Your task to perform on an android device: Play the last video I watched on Youtube Image 0: 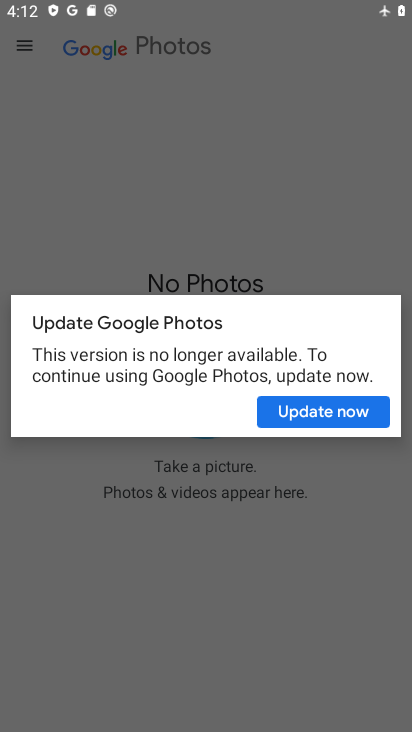
Step 0: click (140, 216)
Your task to perform on an android device: Play the last video I watched on Youtube Image 1: 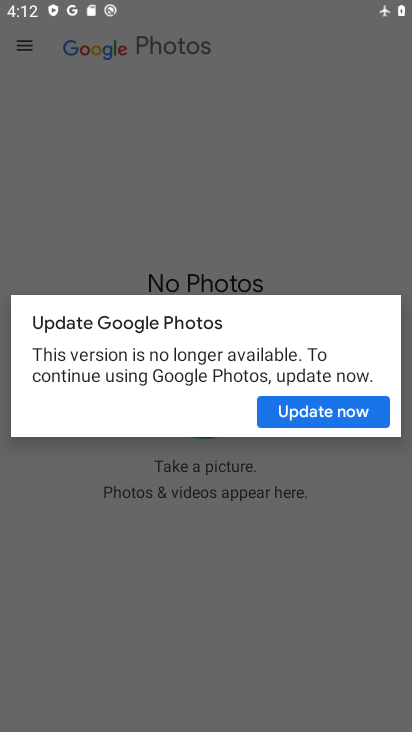
Step 1: click (151, 212)
Your task to perform on an android device: Play the last video I watched on Youtube Image 2: 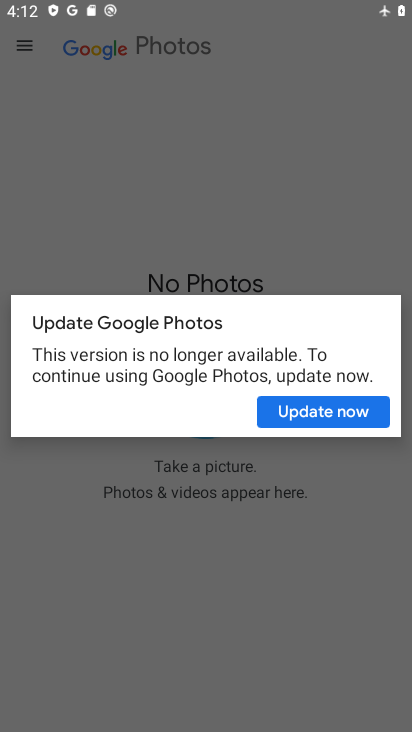
Step 2: click (151, 212)
Your task to perform on an android device: Play the last video I watched on Youtube Image 3: 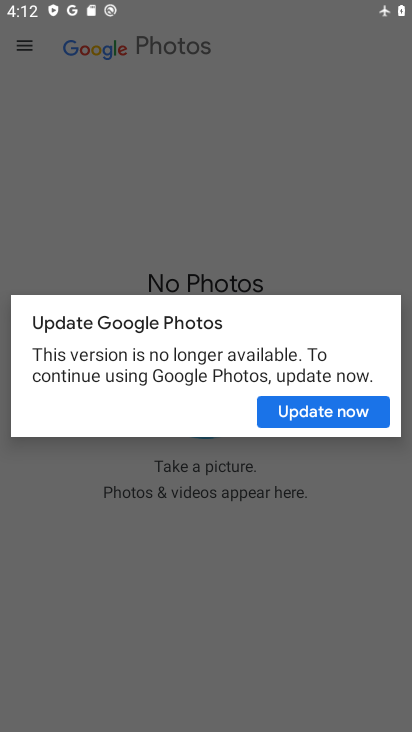
Step 3: click (331, 175)
Your task to perform on an android device: Play the last video I watched on Youtube Image 4: 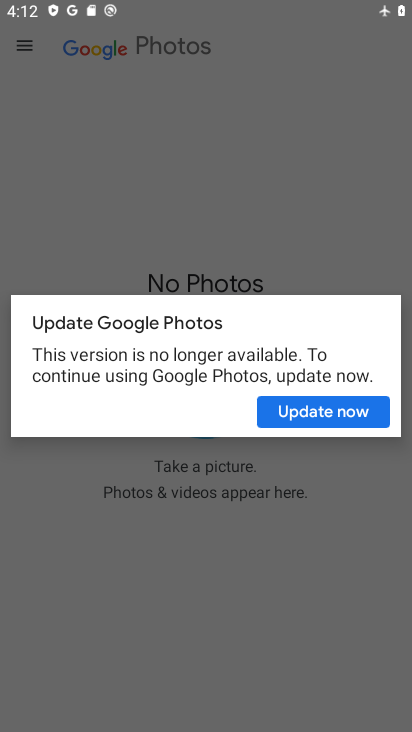
Step 4: click (331, 176)
Your task to perform on an android device: Play the last video I watched on Youtube Image 5: 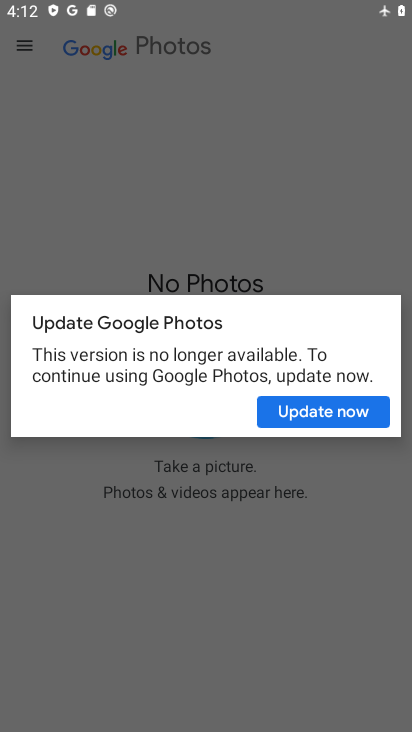
Step 5: press back button
Your task to perform on an android device: Play the last video I watched on Youtube Image 6: 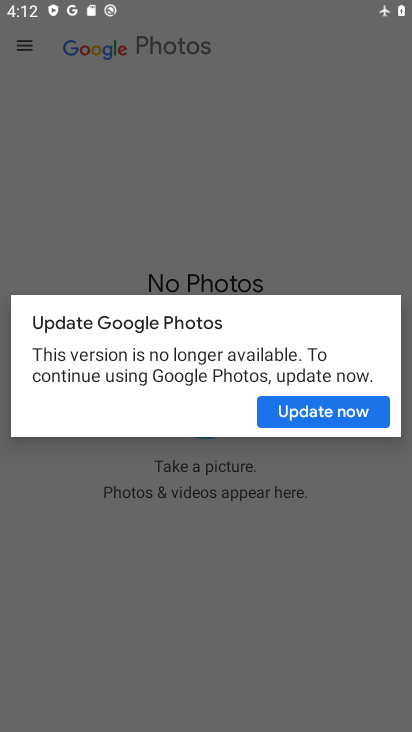
Step 6: press back button
Your task to perform on an android device: Play the last video I watched on Youtube Image 7: 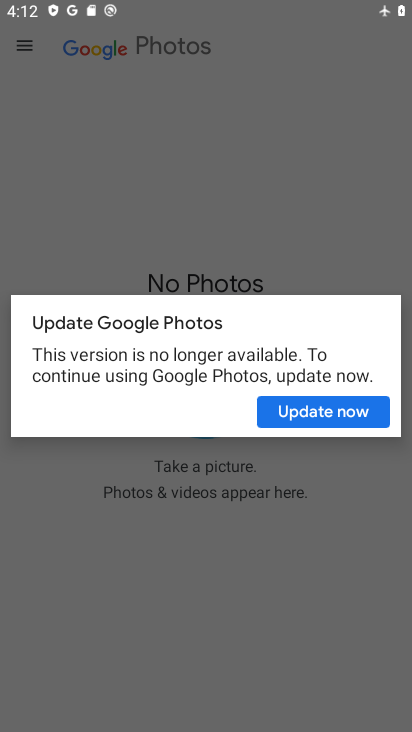
Step 7: click (125, 190)
Your task to perform on an android device: Play the last video I watched on Youtube Image 8: 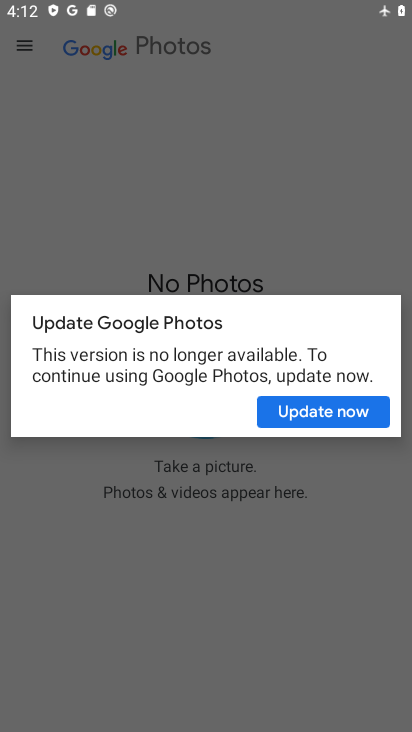
Step 8: click (183, 180)
Your task to perform on an android device: Play the last video I watched on Youtube Image 9: 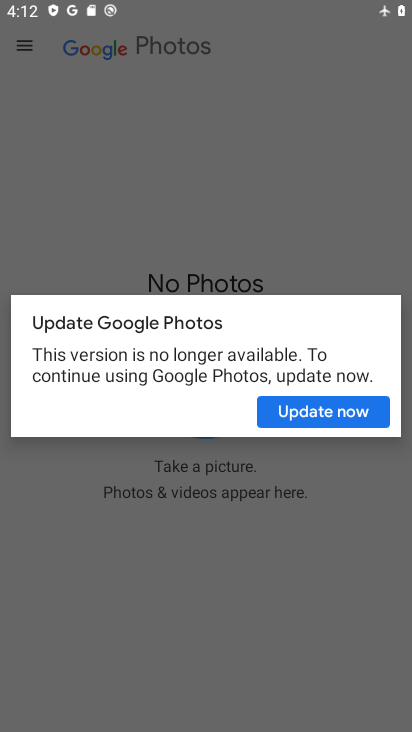
Step 9: click (236, 186)
Your task to perform on an android device: Play the last video I watched on Youtube Image 10: 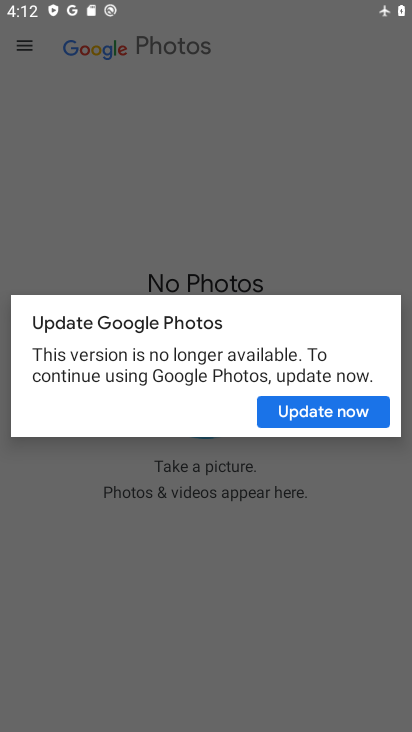
Step 10: click (225, 191)
Your task to perform on an android device: Play the last video I watched on Youtube Image 11: 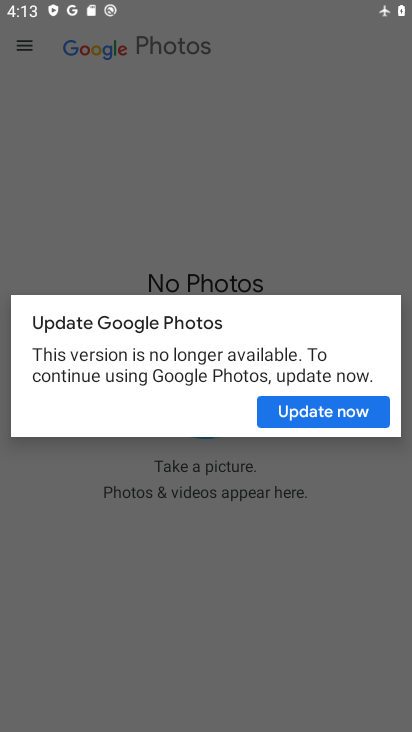
Step 11: click (172, 254)
Your task to perform on an android device: Play the last video I watched on Youtube Image 12: 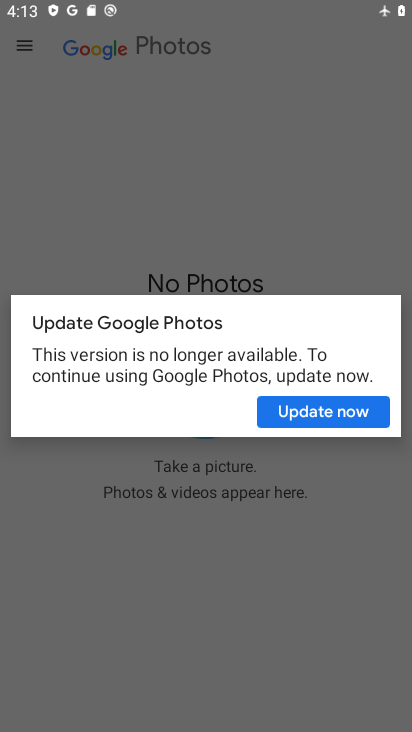
Step 12: press back button
Your task to perform on an android device: Play the last video I watched on Youtube Image 13: 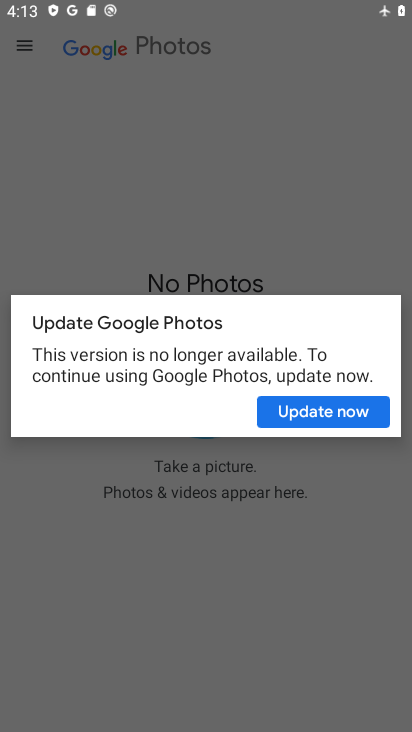
Step 13: press home button
Your task to perform on an android device: Play the last video I watched on Youtube Image 14: 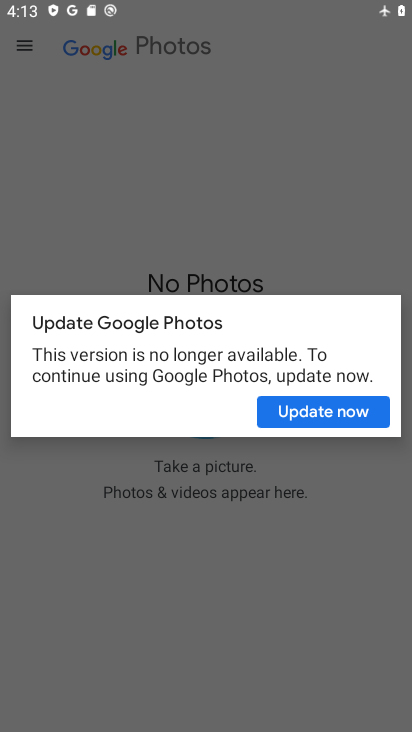
Step 14: press home button
Your task to perform on an android device: Play the last video I watched on Youtube Image 15: 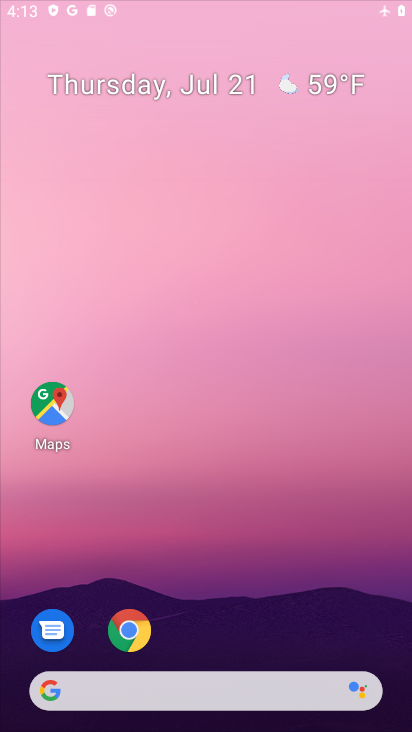
Step 15: press back button
Your task to perform on an android device: Play the last video I watched on Youtube Image 16: 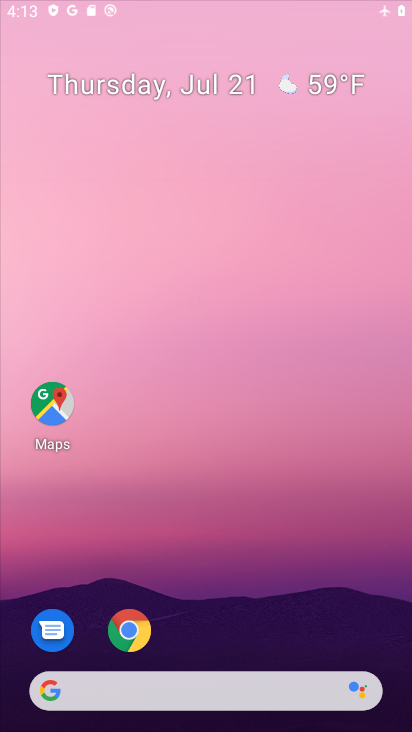
Step 16: press home button
Your task to perform on an android device: Play the last video I watched on Youtube Image 17: 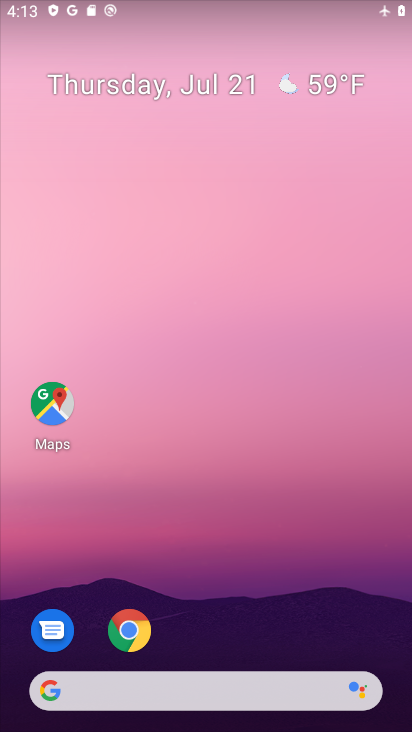
Step 17: press back button
Your task to perform on an android device: Play the last video I watched on Youtube Image 18: 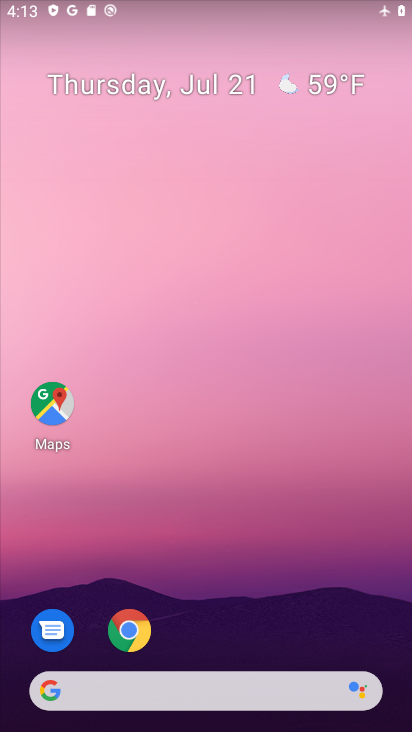
Step 18: click (182, 97)
Your task to perform on an android device: Play the last video I watched on Youtube Image 19: 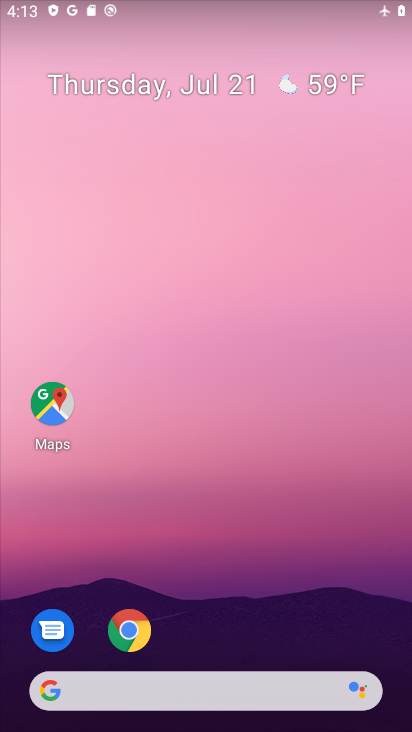
Step 19: drag from (240, 424) to (218, 156)
Your task to perform on an android device: Play the last video I watched on Youtube Image 20: 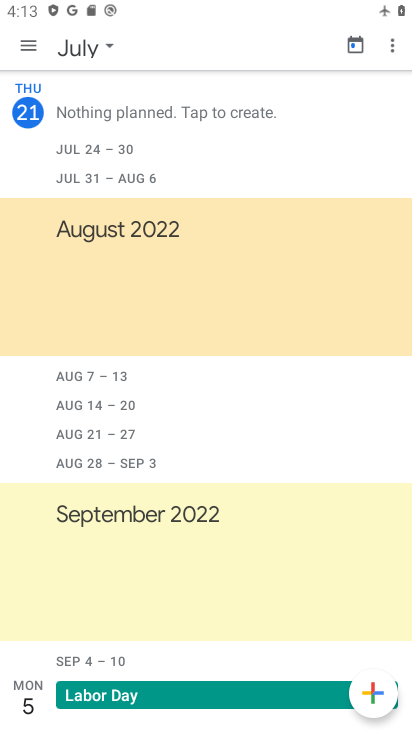
Step 20: press back button
Your task to perform on an android device: Play the last video I watched on Youtube Image 21: 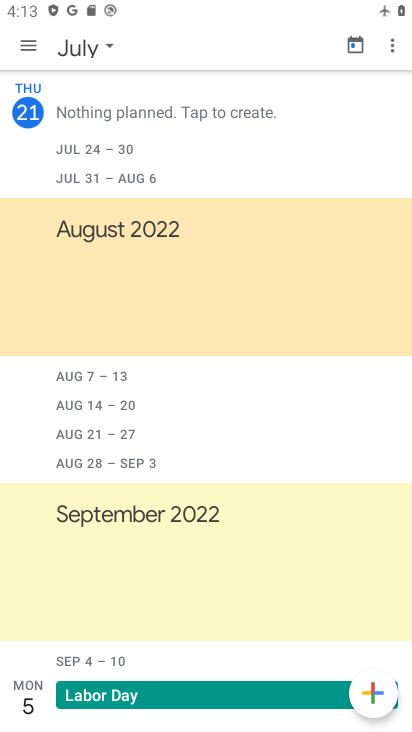
Step 21: press back button
Your task to perform on an android device: Play the last video I watched on Youtube Image 22: 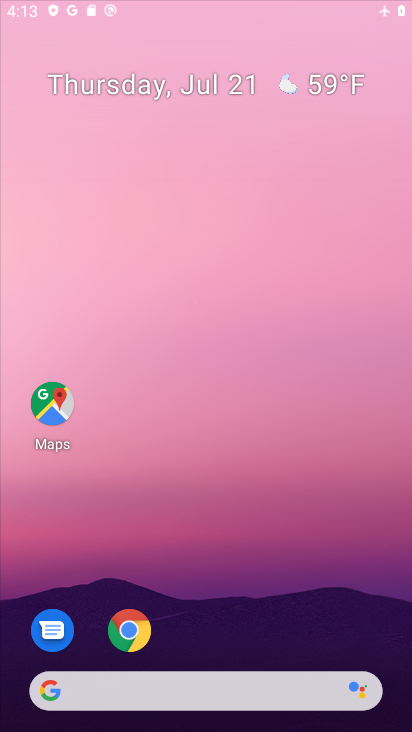
Step 22: press back button
Your task to perform on an android device: Play the last video I watched on Youtube Image 23: 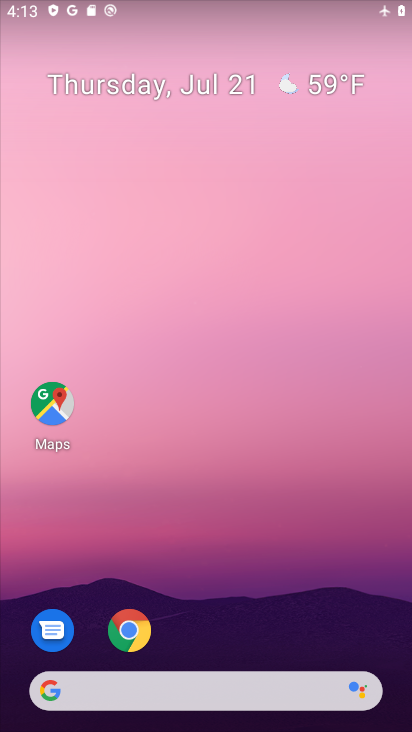
Step 23: drag from (190, 384) to (154, 119)
Your task to perform on an android device: Play the last video I watched on Youtube Image 24: 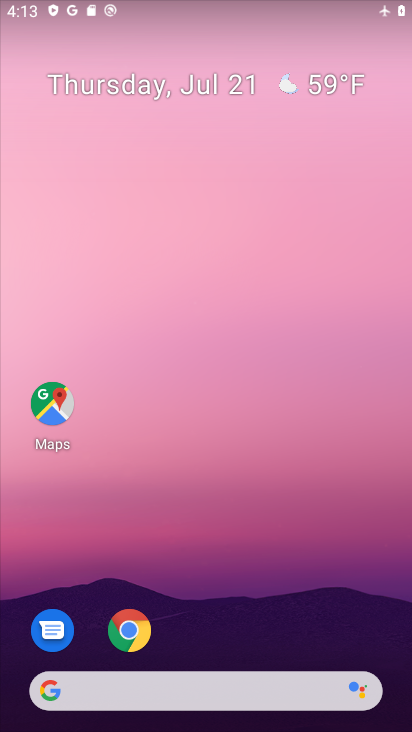
Step 24: drag from (226, 504) to (226, 63)
Your task to perform on an android device: Play the last video I watched on Youtube Image 25: 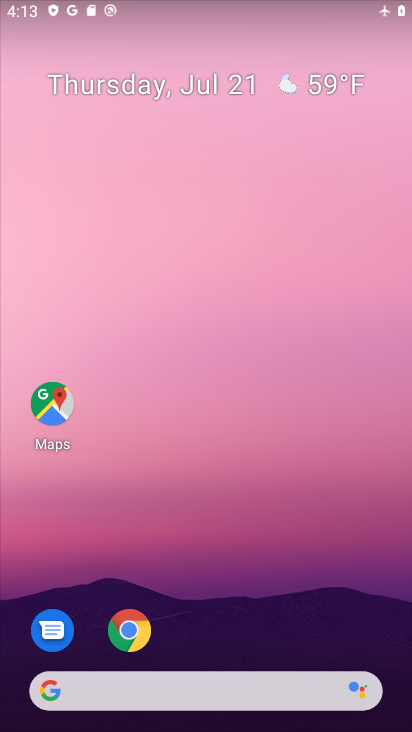
Step 25: drag from (246, 428) to (249, 52)
Your task to perform on an android device: Play the last video I watched on Youtube Image 26: 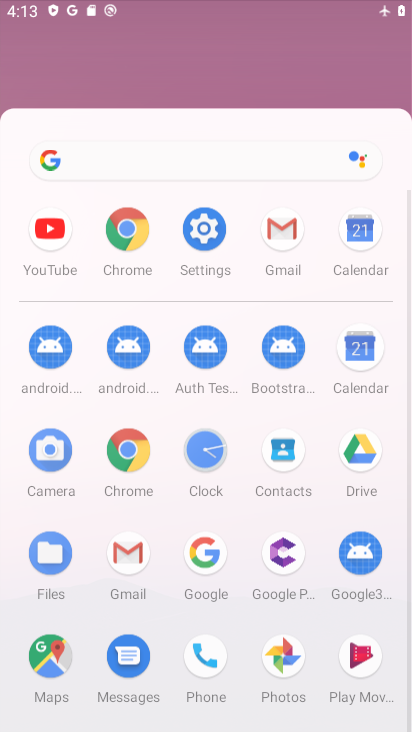
Step 26: drag from (180, 501) to (154, 203)
Your task to perform on an android device: Play the last video I watched on Youtube Image 27: 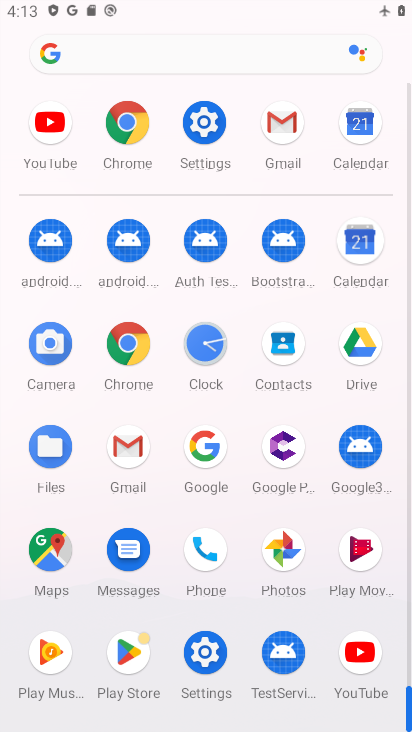
Step 27: click (361, 630)
Your task to perform on an android device: Play the last video I watched on Youtube Image 28: 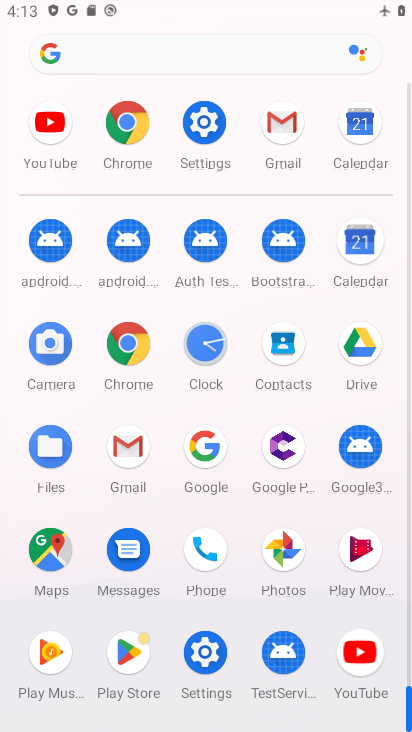
Step 28: click (365, 642)
Your task to perform on an android device: Play the last video I watched on Youtube Image 29: 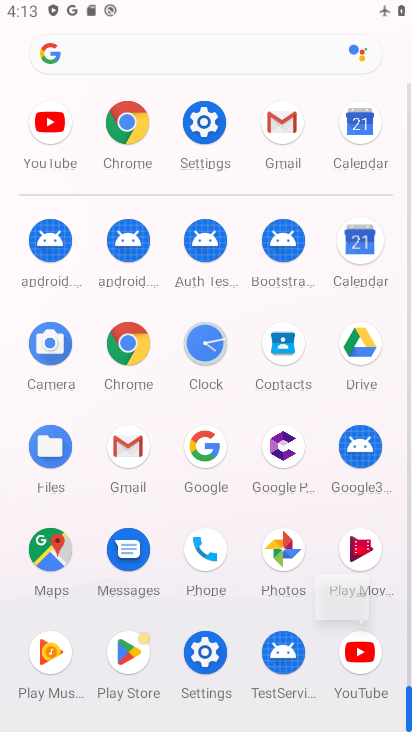
Step 29: click (360, 644)
Your task to perform on an android device: Play the last video I watched on Youtube Image 30: 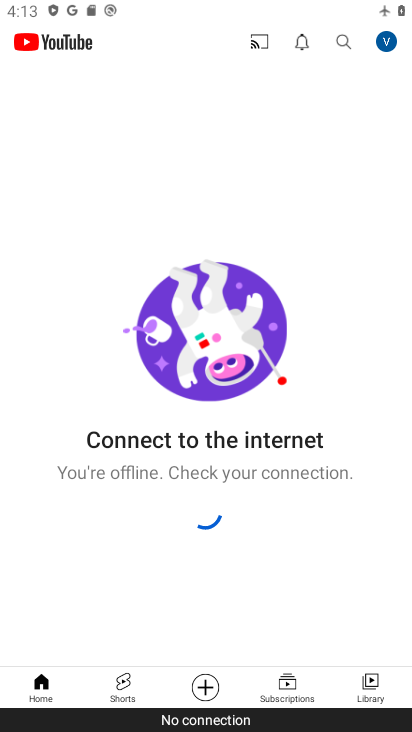
Step 30: task complete